Your task to perform on an android device: Find coffee shops on Maps Image 0: 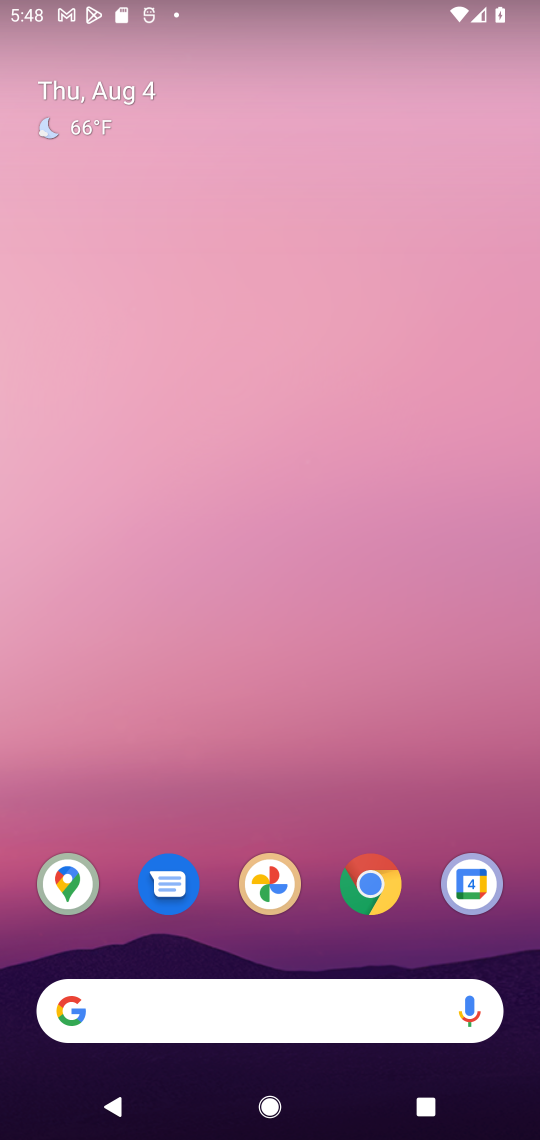
Step 0: click (79, 904)
Your task to perform on an android device: Find coffee shops on Maps Image 1: 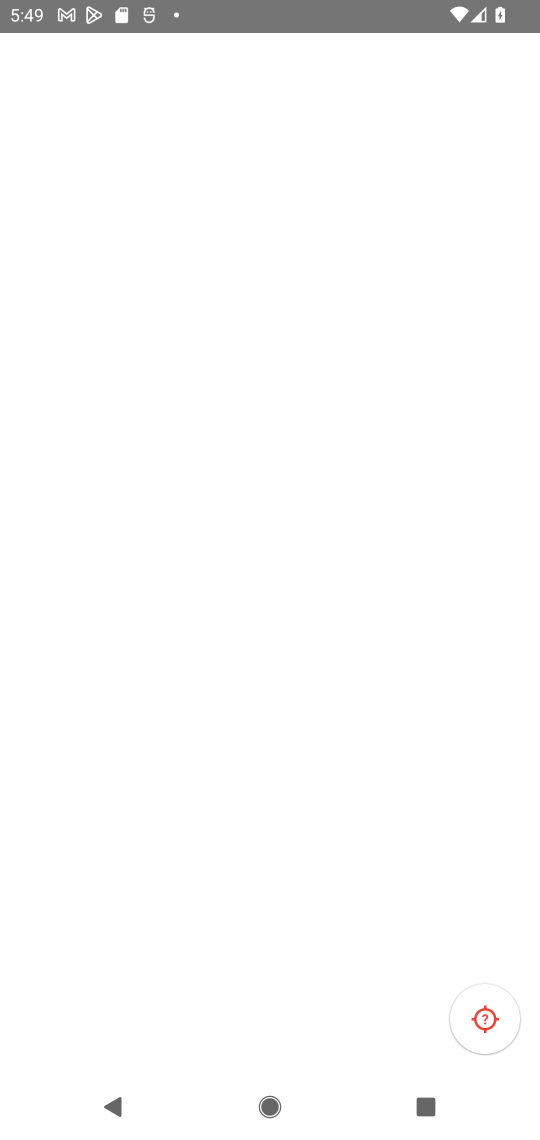
Step 1: task complete